Your task to perform on an android device: stop showing notifications on the lock screen Image 0: 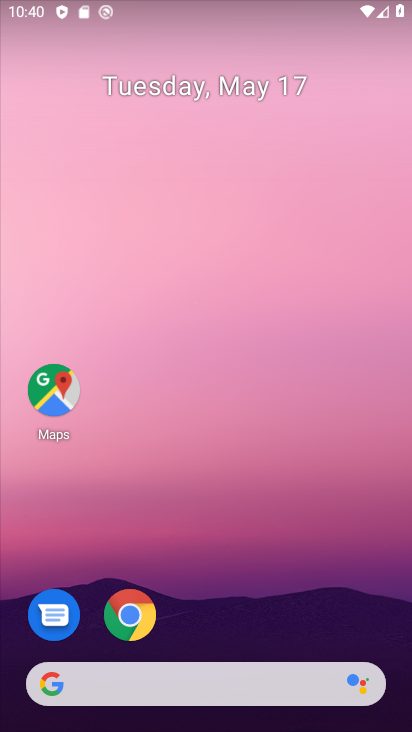
Step 0: drag from (210, 620) to (204, 235)
Your task to perform on an android device: stop showing notifications on the lock screen Image 1: 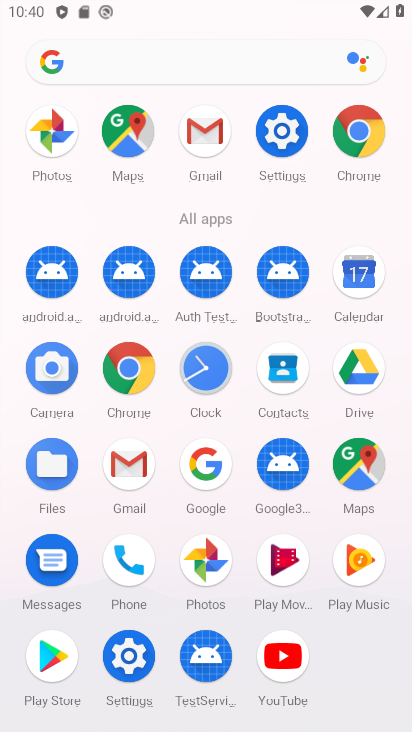
Step 1: click (283, 130)
Your task to perform on an android device: stop showing notifications on the lock screen Image 2: 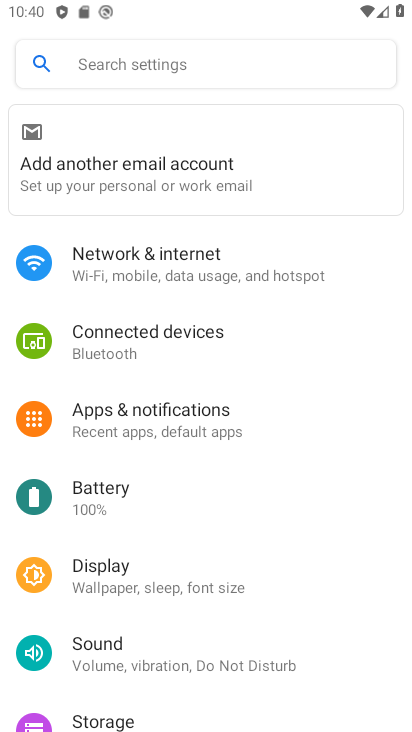
Step 2: click (173, 415)
Your task to perform on an android device: stop showing notifications on the lock screen Image 3: 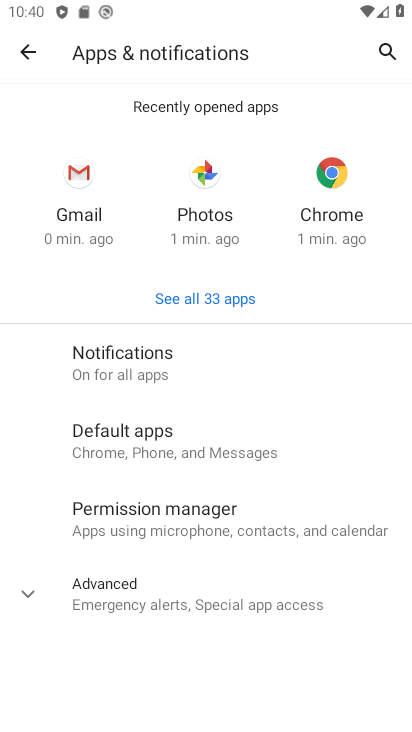
Step 3: click (162, 373)
Your task to perform on an android device: stop showing notifications on the lock screen Image 4: 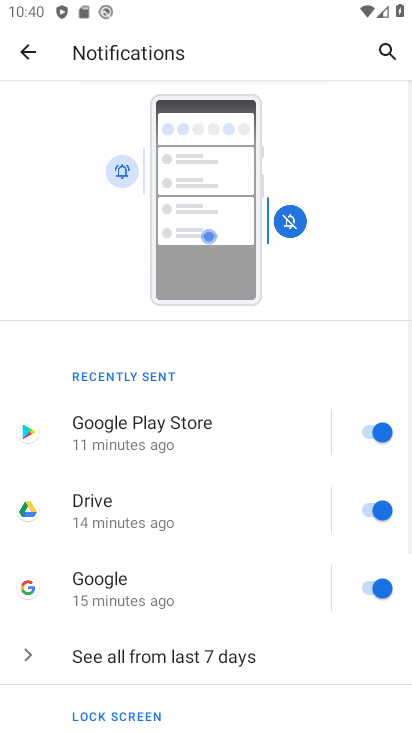
Step 4: drag from (209, 553) to (205, 142)
Your task to perform on an android device: stop showing notifications on the lock screen Image 5: 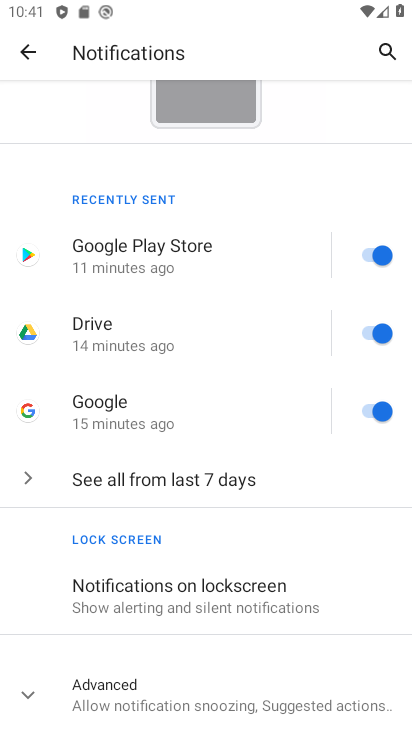
Step 5: click (150, 605)
Your task to perform on an android device: stop showing notifications on the lock screen Image 6: 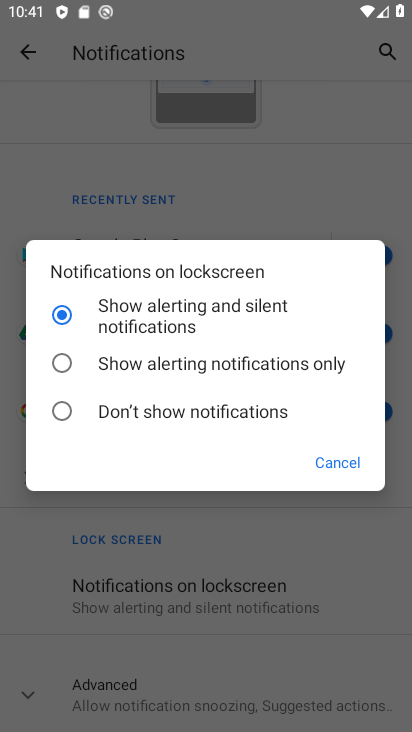
Step 6: click (86, 402)
Your task to perform on an android device: stop showing notifications on the lock screen Image 7: 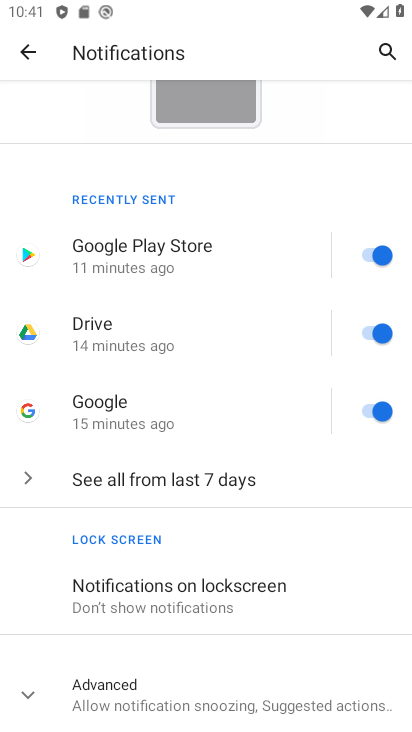
Step 7: task complete